Your task to perform on an android device: Open Wikipedia Image 0: 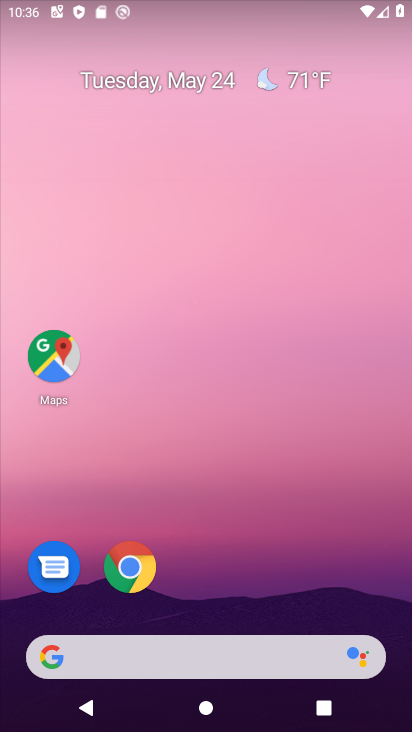
Step 0: click (118, 571)
Your task to perform on an android device: Open Wikipedia Image 1: 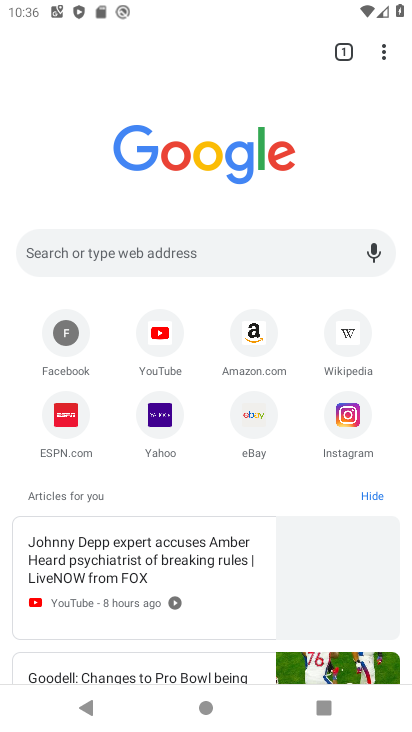
Step 1: click (134, 256)
Your task to perform on an android device: Open Wikipedia Image 2: 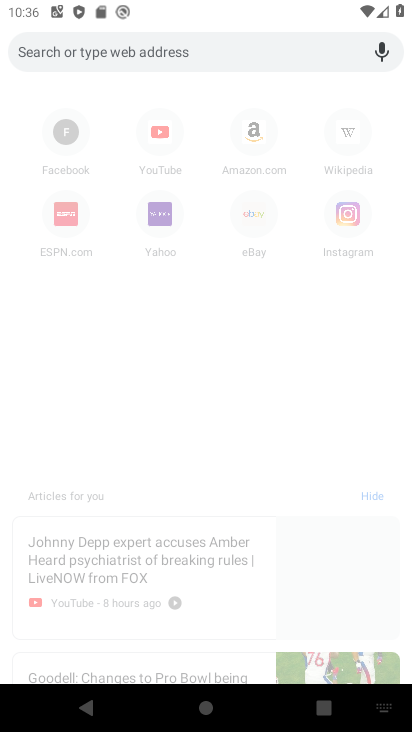
Step 2: type "Wikipedia"
Your task to perform on an android device: Open Wikipedia Image 3: 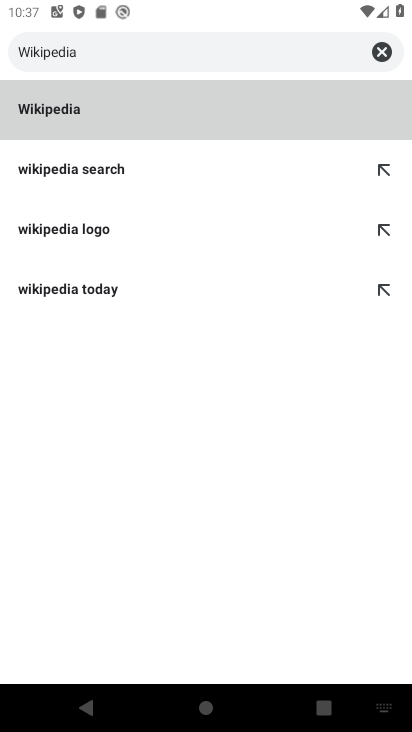
Step 3: click (59, 109)
Your task to perform on an android device: Open Wikipedia Image 4: 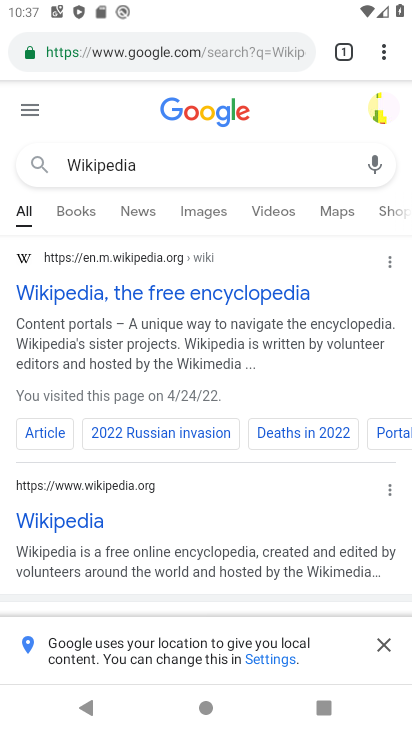
Step 4: task complete